Your task to perform on an android device: find photos in the google photos app Image 0: 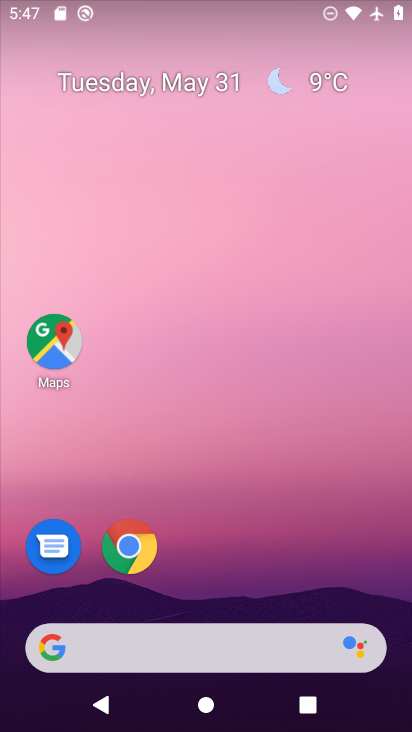
Step 0: drag from (268, 414) to (191, 7)
Your task to perform on an android device: find photos in the google photos app Image 1: 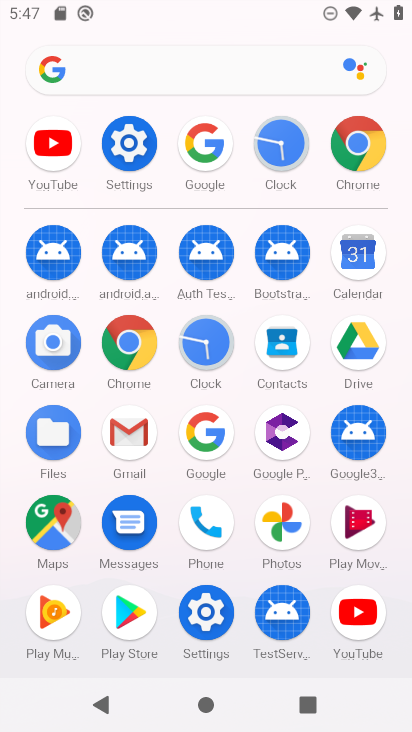
Step 1: click (278, 531)
Your task to perform on an android device: find photos in the google photos app Image 2: 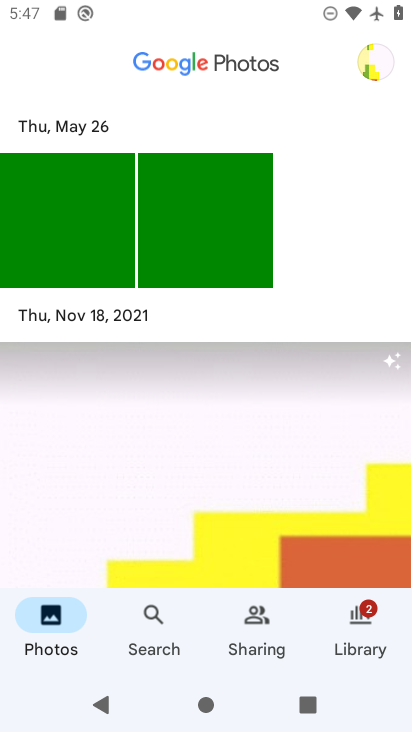
Step 2: task complete